Your task to perform on an android device: Is it going to rain tomorrow? Image 0: 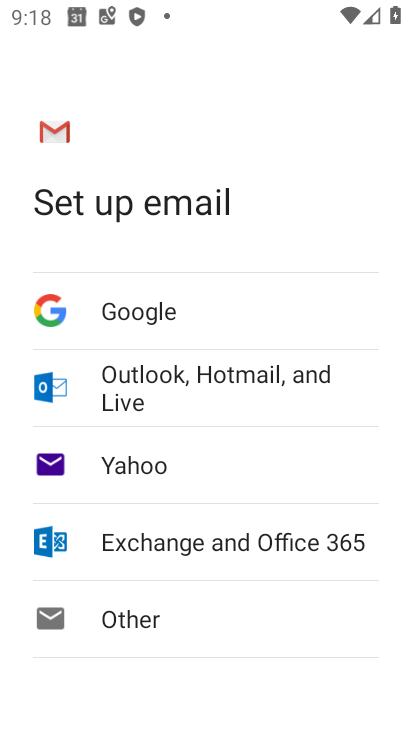
Step 0: press home button
Your task to perform on an android device: Is it going to rain tomorrow? Image 1: 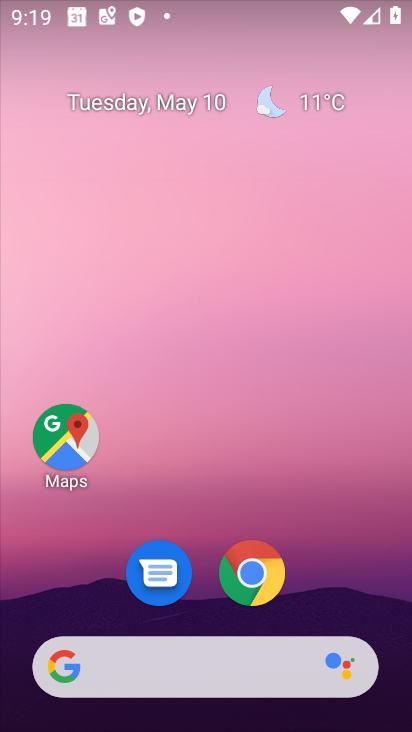
Step 1: click (310, 105)
Your task to perform on an android device: Is it going to rain tomorrow? Image 2: 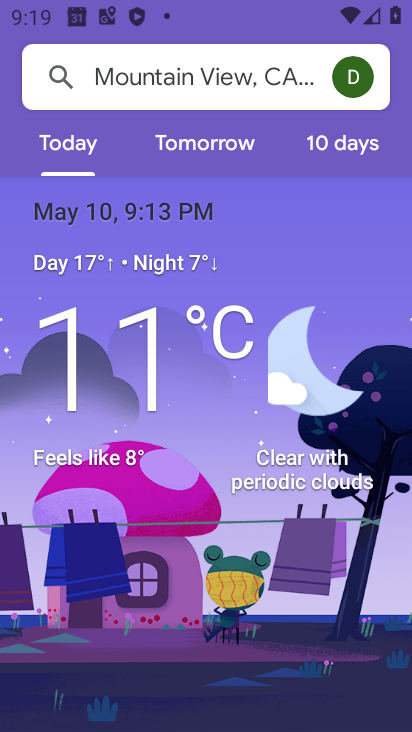
Step 2: click (206, 152)
Your task to perform on an android device: Is it going to rain tomorrow? Image 3: 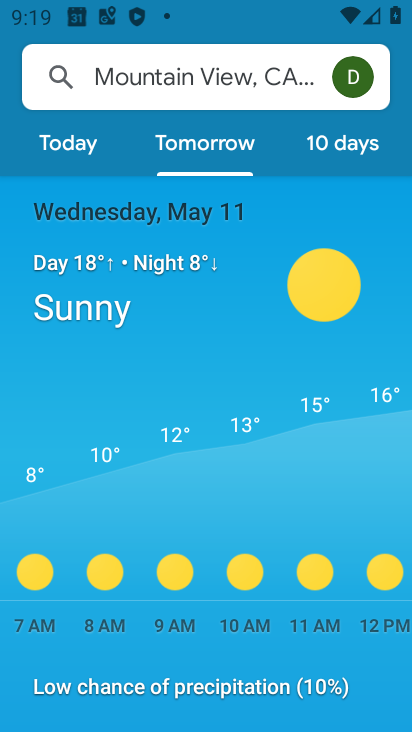
Step 3: task complete